Your task to perform on an android device: Go to accessibility settings Image 0: 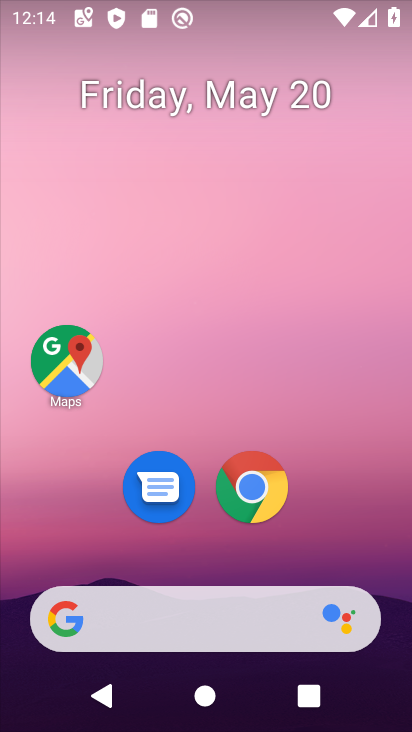
Step 0: drag from (189, 575) to (262, 21)
Your task to perform on an android device: Go to accessibility settings Image 1: 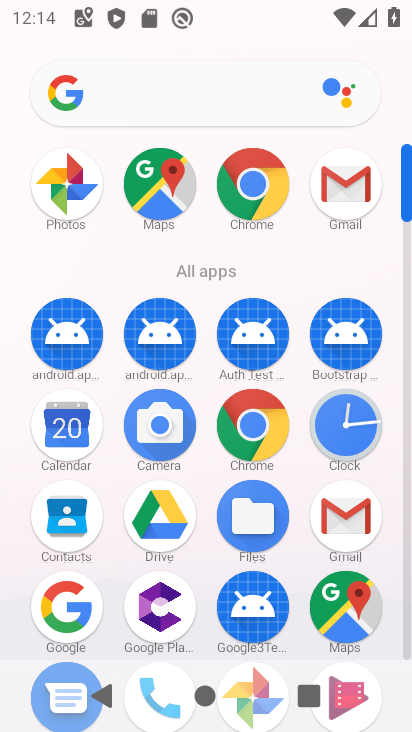
Step 1: drag from (217, 617) to (313, 94)
Your task to perform on an android device: Go to accessibility settings Image 2: 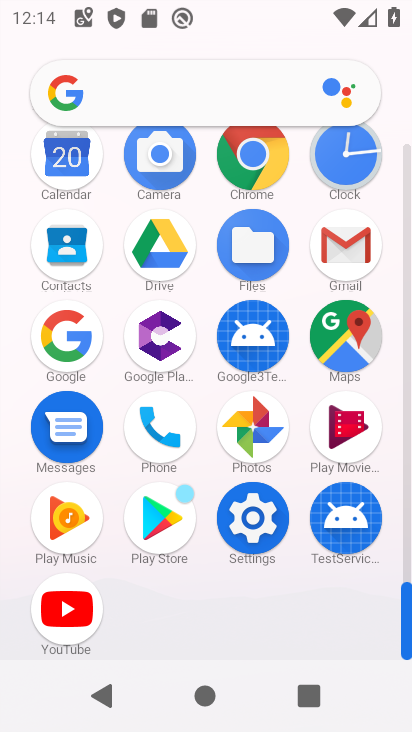
Step 2: click (252, 529)
Your task to perform on an android device: Go to accessibility settings Image 3: 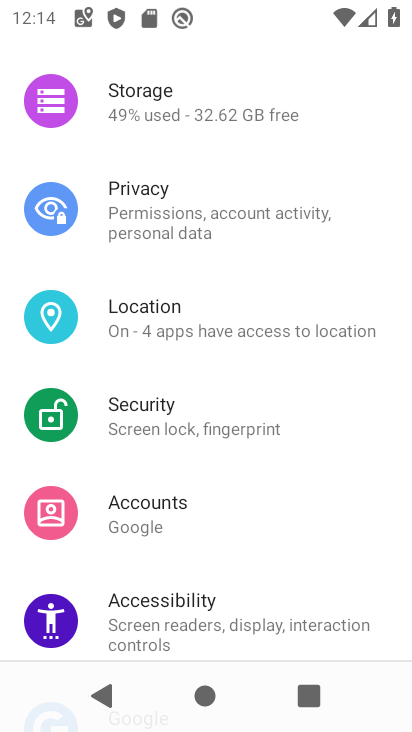
Step 3: click (160, 616)
Your task to perform on an android device: Go to accessibility settings Image 4: 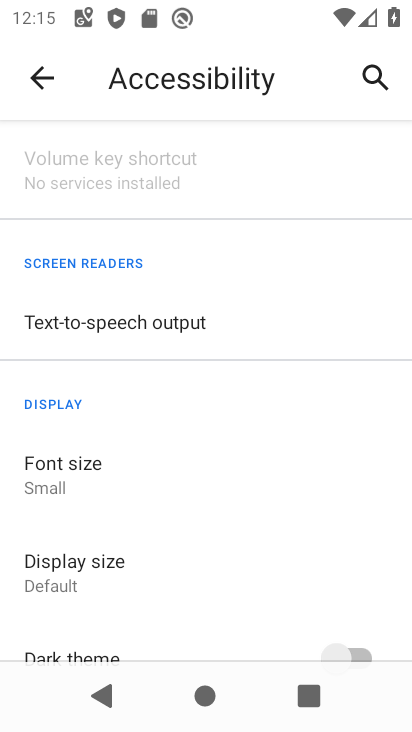
Step 4: task complete